Your task to perform on an android device: create a new album in the google photos Image 0: 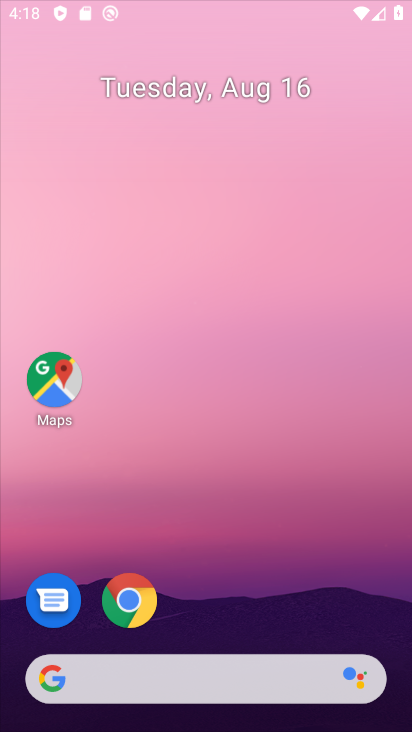
Step 0: click (322, 382)
Your task to perform on an android device: create a new album in the google photos Image 1: 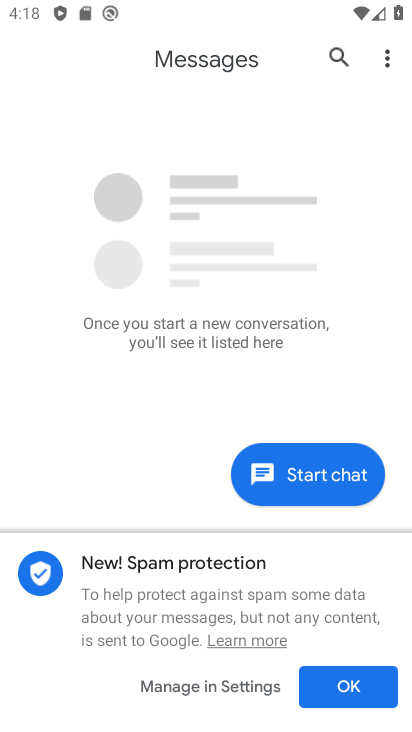
Step 1: press home button
Your task to perform on an android device: create a new album in the google photos Image 2: 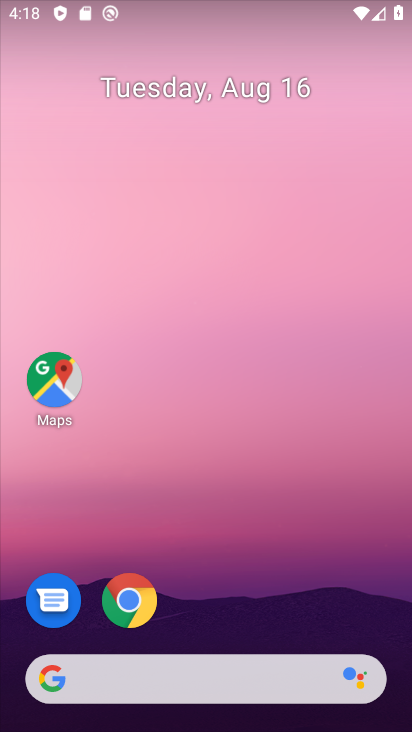
Step 2: drag from (198, 602) to (247, 3)
Your task to perform on an android device: create a new album in the google photos Image 3: 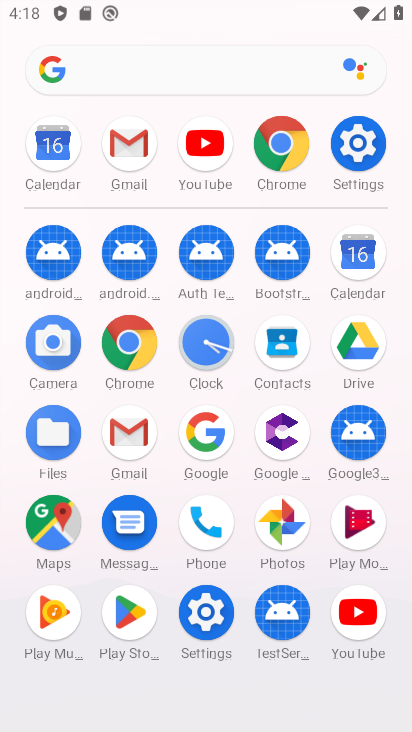
Step 3: click (282, 527)
Your task to perform on an android device: create a new album in the google photos Image 4: 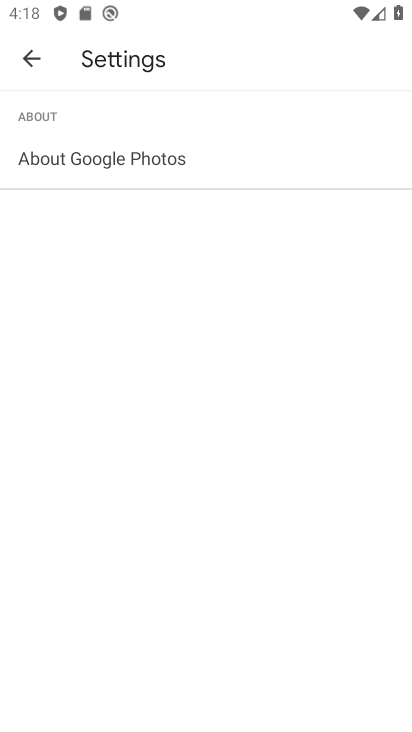
Step 4: click (38, 60)
Your task to perform on an android device: create a new album in the google photos Image 5: 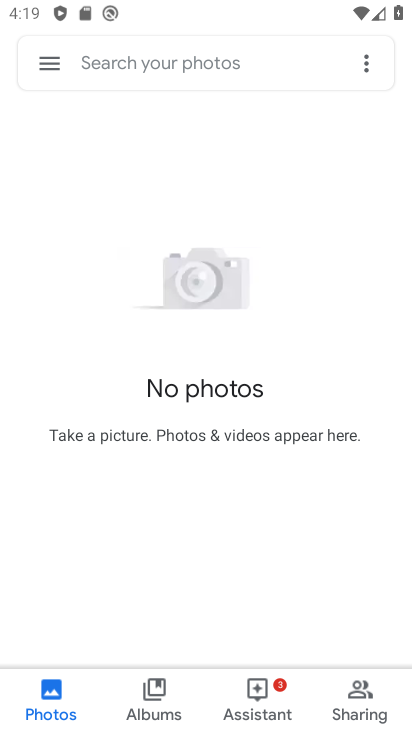
Step 5: click (134, 700)
Your task to perform on an android device: create a new album in the google photos Image 6: 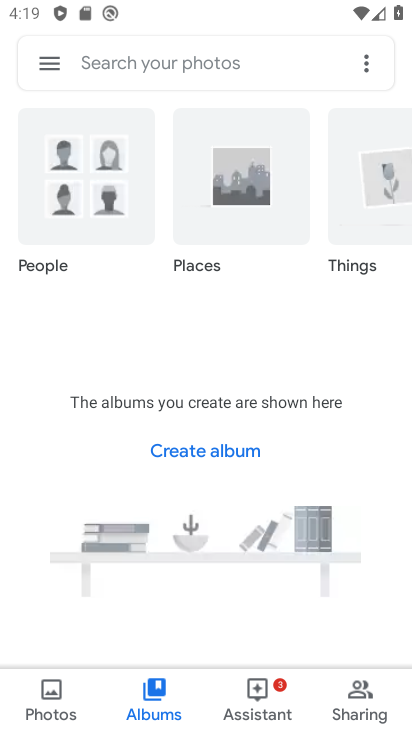
Step 6: click (238, 453)
Your task to perform on an android device: create a new album in the google photos Image 7: 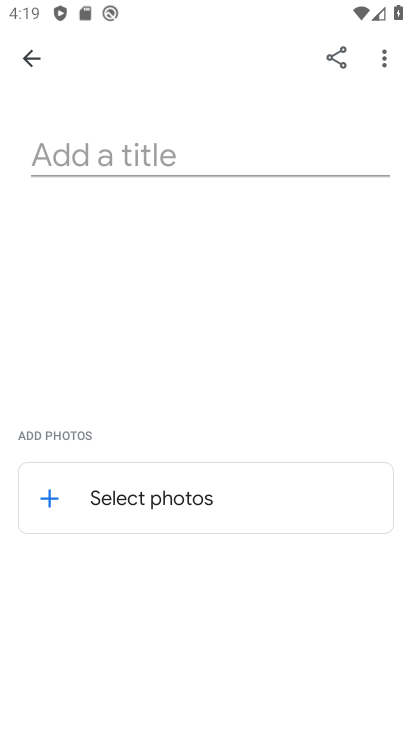
Step 7: click (45, 498)
Your task to perform on an android device: create a new album in the google photos Image 8: 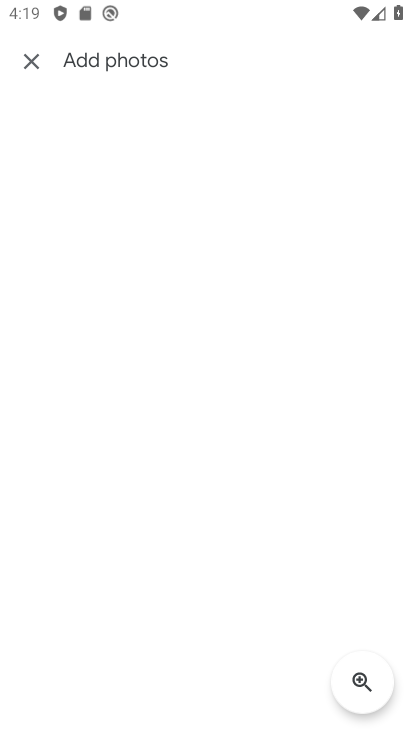
Step 8: task complete